Your task to perform on an android device: Go to CNN.com Image 0: 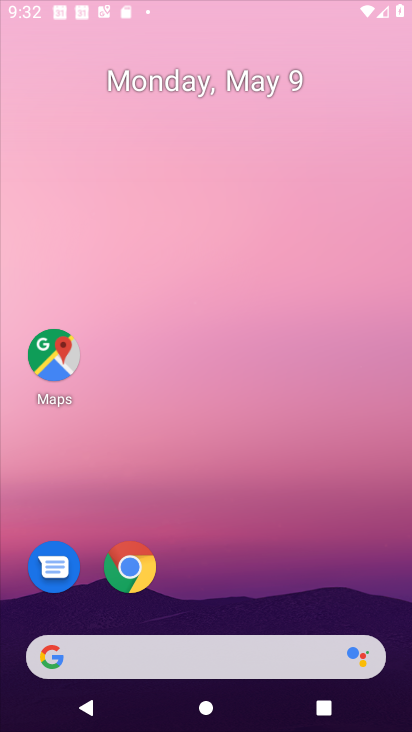
Step 0: click (245, 37)
Your task to perform on an android device: Go to CNN.com Image 1: 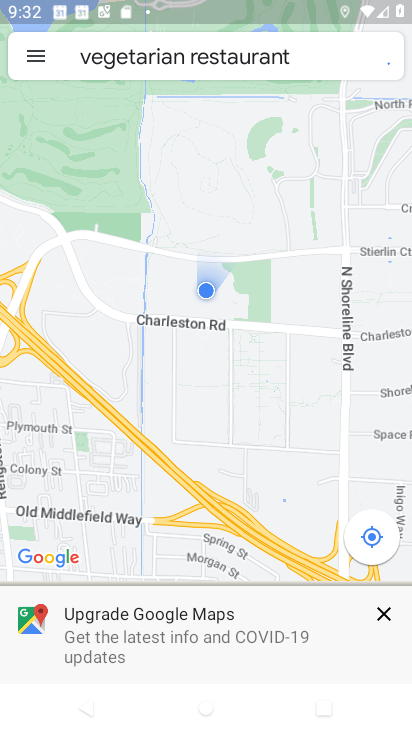
Step 1: press home button
Your task to perform on an android device: Go to CNN.com Image 2: 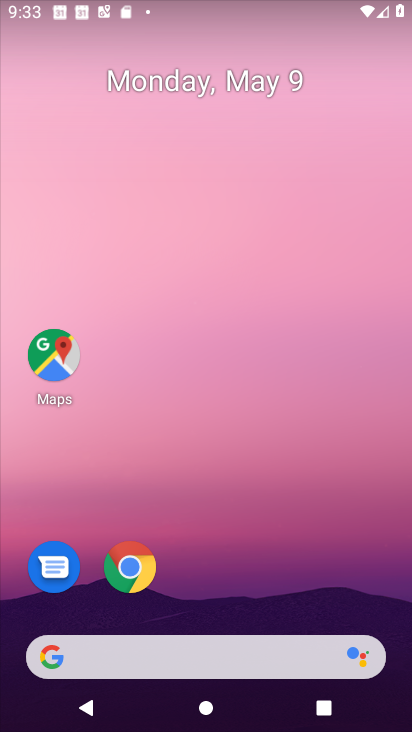
Step 2: click (199, 658)
Your task to perform on an android device: Go to CNN.com Image 3: 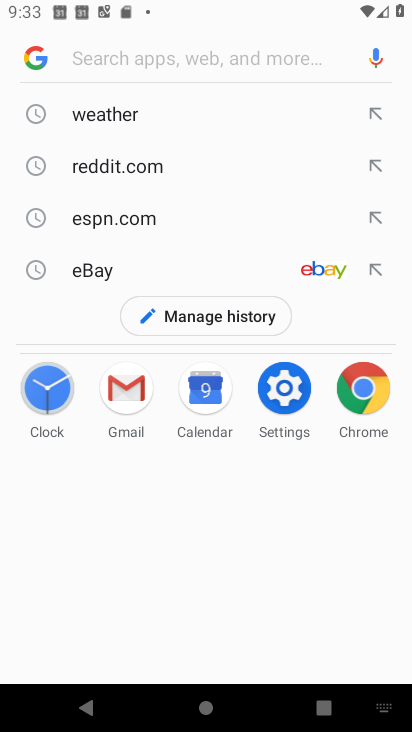
Step 3: click (184, 51)
Your task to perform on an android device: Go to CNN.com Image 4: 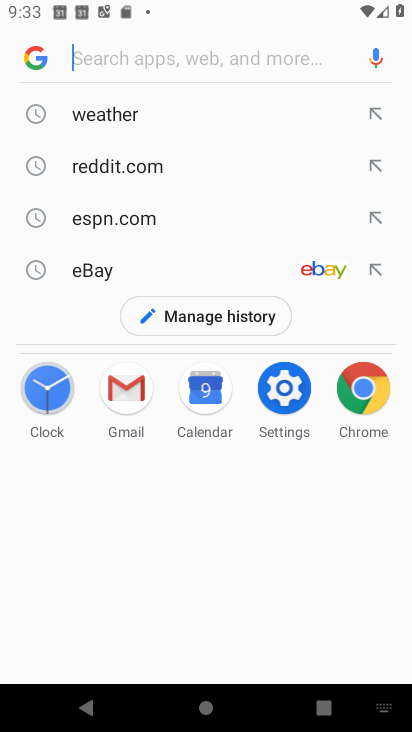
Step 4: type "cnn.com"
Your task to perform on an android device: Go to CNN.com Image 5: 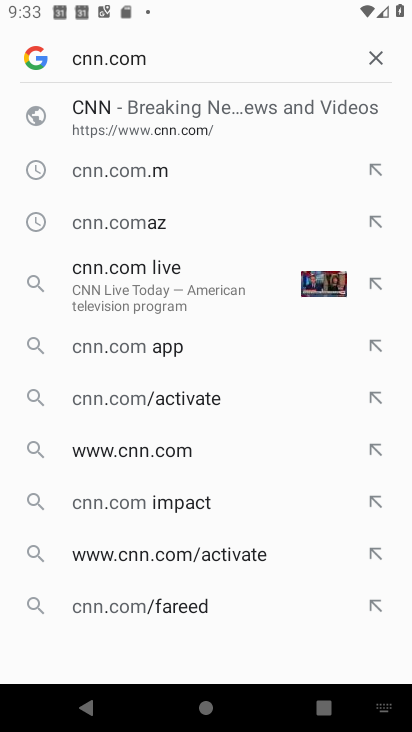
Step 5: click (103, 125)
Your task to perform on an android device: Go to CNN.com Image 6: 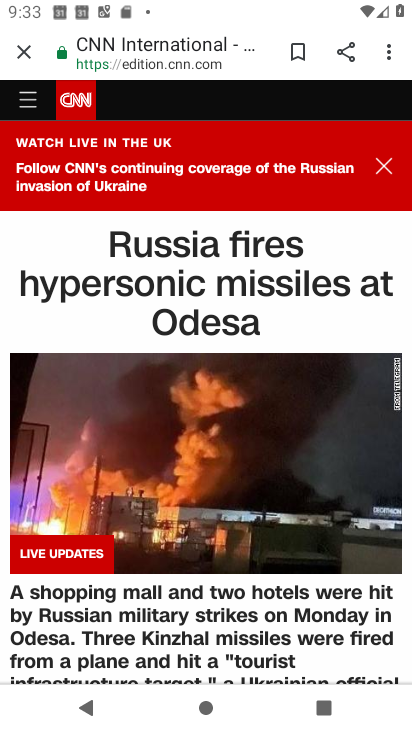
Step 6: task complete